Your task to perform on an android device: Search for seafood restaurants on Google Maps Image 0: 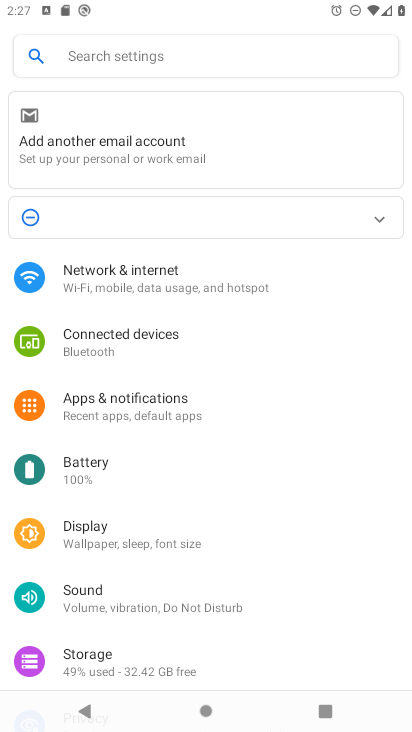
Step 0: press home button
Your task to perform on an android device: Search for seafood restaurants on Google Maps Image 1: 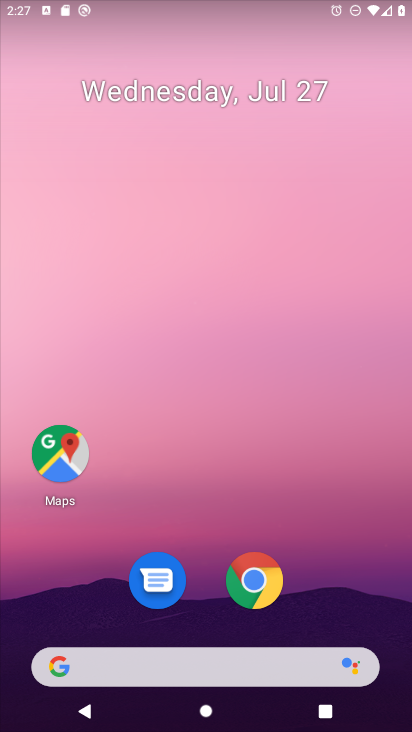
Step 1: click (64, 474)
Your task to perform on an android device: Search for seafood restaurants on Google Maps Image 2: 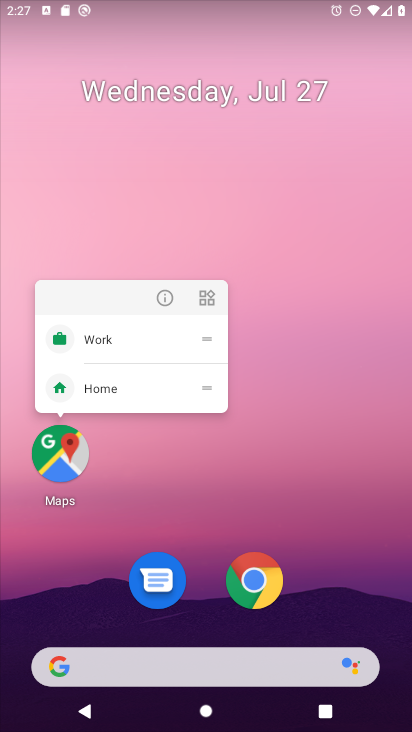
Step 2: click (64, 460)
Your task to perform on an android device: Search for seafood restaurants on Google Maps Image 3: 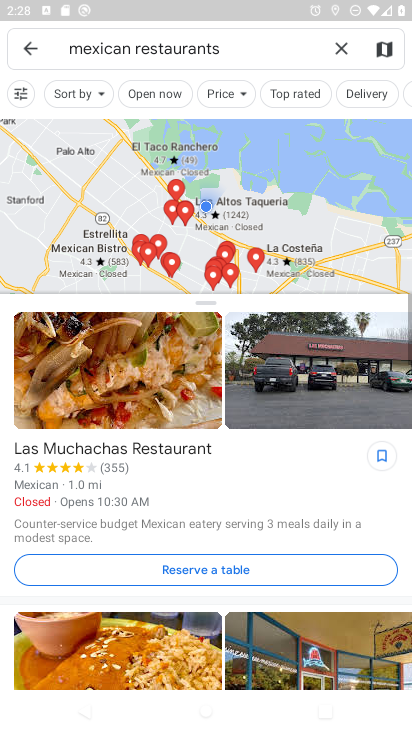
Step 3: click (338, 47)
Your task to perform on an android device: Search for seafood restaurants on Google Maps Image 4: 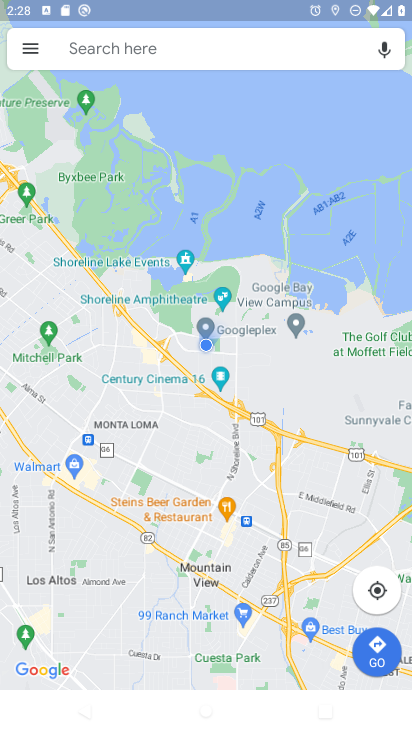
Step 4: click (166, 54)
Your task to perform on an android device: Search for seafood restaurants on Google Maps Image 5: 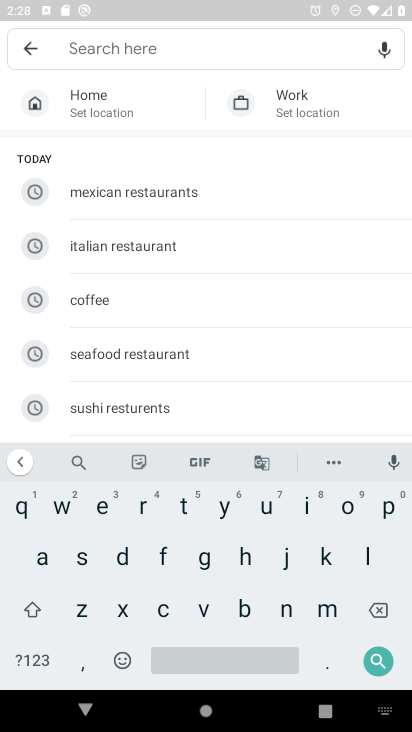
Step 5: click (131, 356)
Your task to perform on an android device: Search for seafood restaurants on Google Maps Image 6: 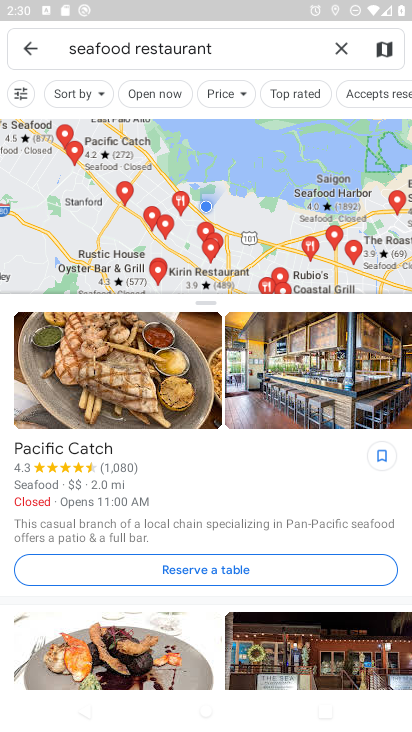
Step 6: task complete